Your task to perform on an android device: Show me popular games on the Play Store Image 0: 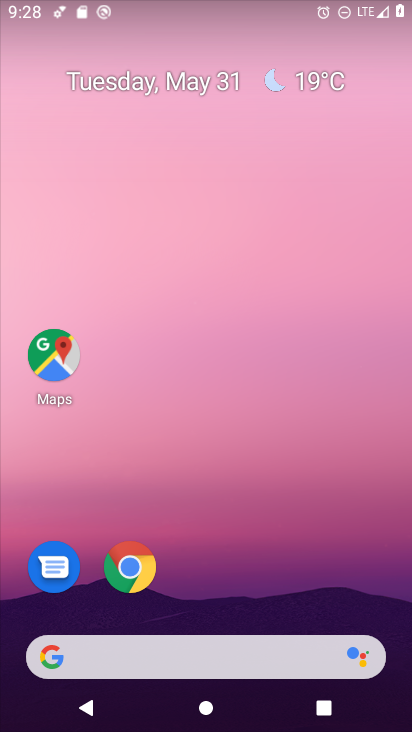
Step 0: press home button
Your task to perform on an android device: Show me popular games on the Play Store Image 1: 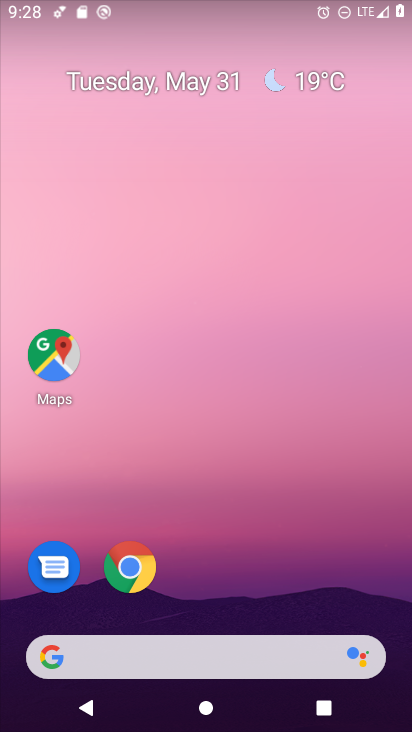
Step 1: drag from (178, 602) to (189, 174)
Your task to perform on an android device: Show me popular games on the Play Store Image 2: 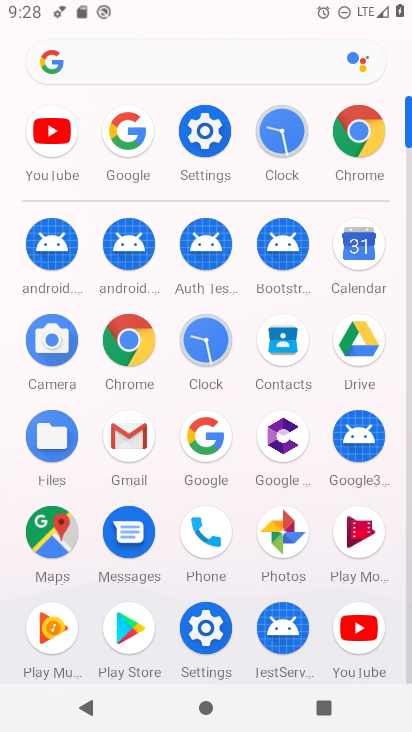
Step 2: click (131, 645)
Your task to perform on an android device: Show me popular games on the Play Store Image 3: 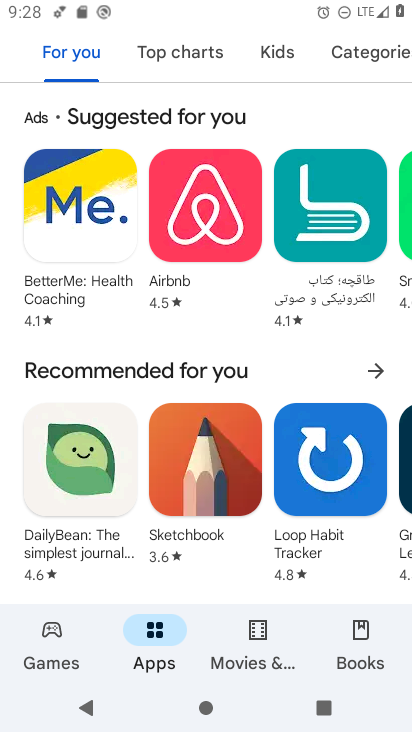
Step 3: drag from (252, 149) to (265, 598)
Your task to perform on an android device: Show me popular games on the Play Store Image 4: 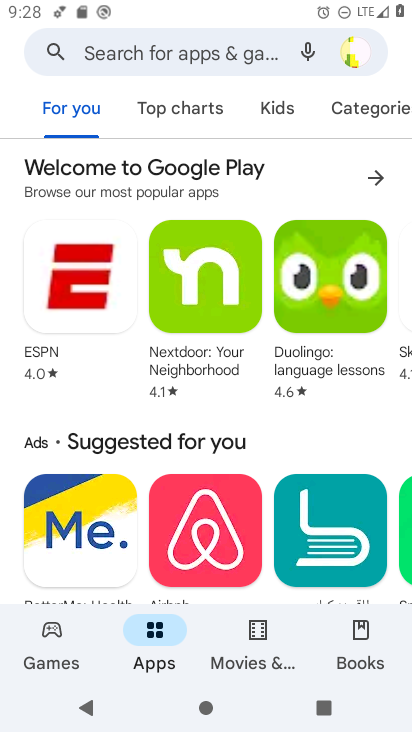
Step 4: click (157, 50)
Your task to perform on an android device: Show me popular games on the Play Store Image 5: 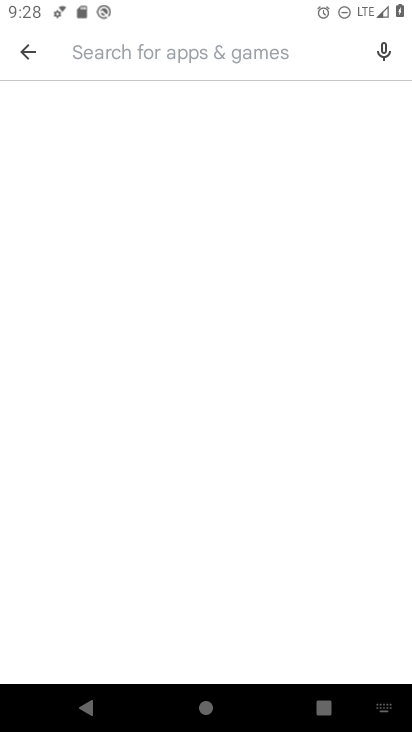
Step 5: type "popular games"
Your task to perform on an android device: Show me popular games on the Play Store Image 6: 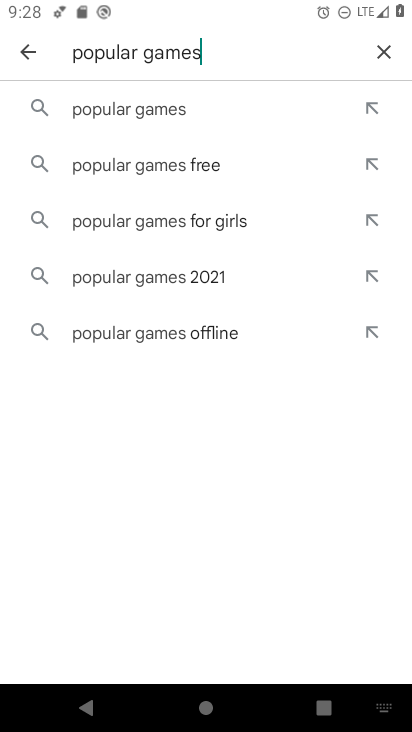
Step 6: click (153, 116)
Your task to perform on an android device: Show me popular games on the Play Store Image 7: 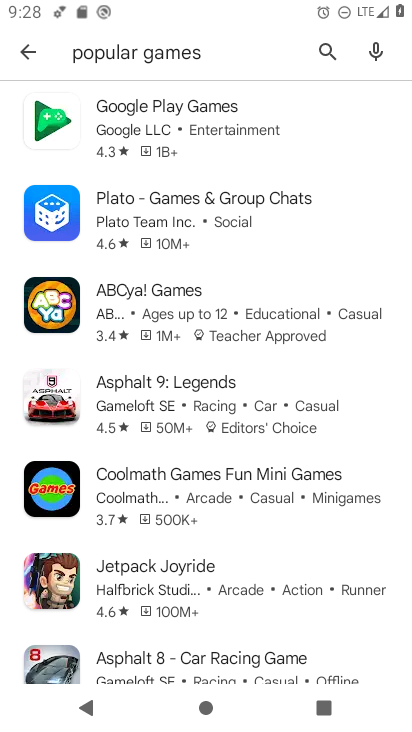
Step 7: task complete